Your task to perform on an android device: open app "eBay: The shopping marketplace" (install if not already installed) Image 0: 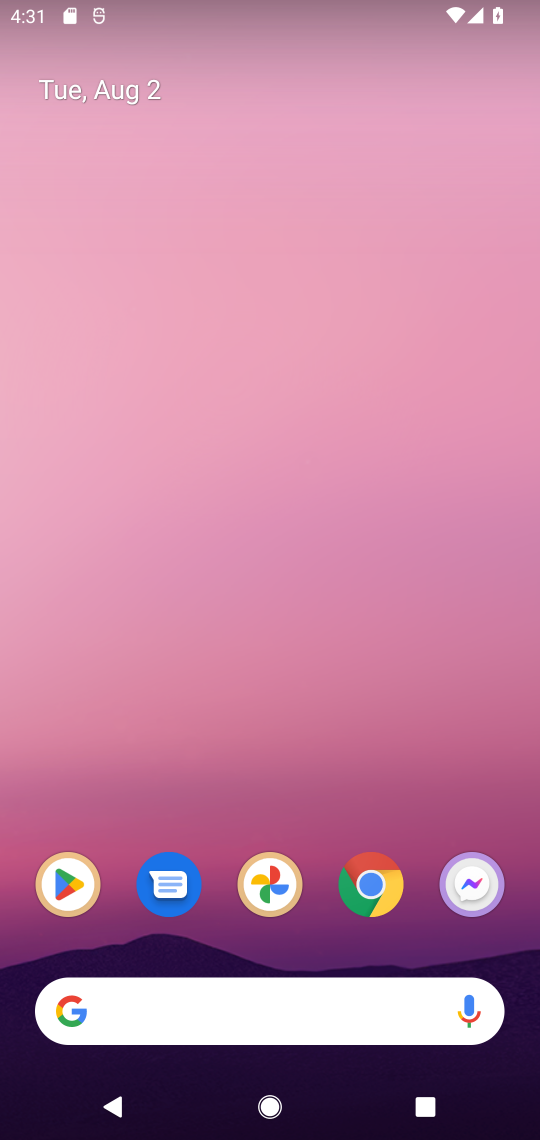
Step 0: press enter
Your task to perform on an android device: open app "eBay: The shopping marketplace" (install if not already installed) Image 1: 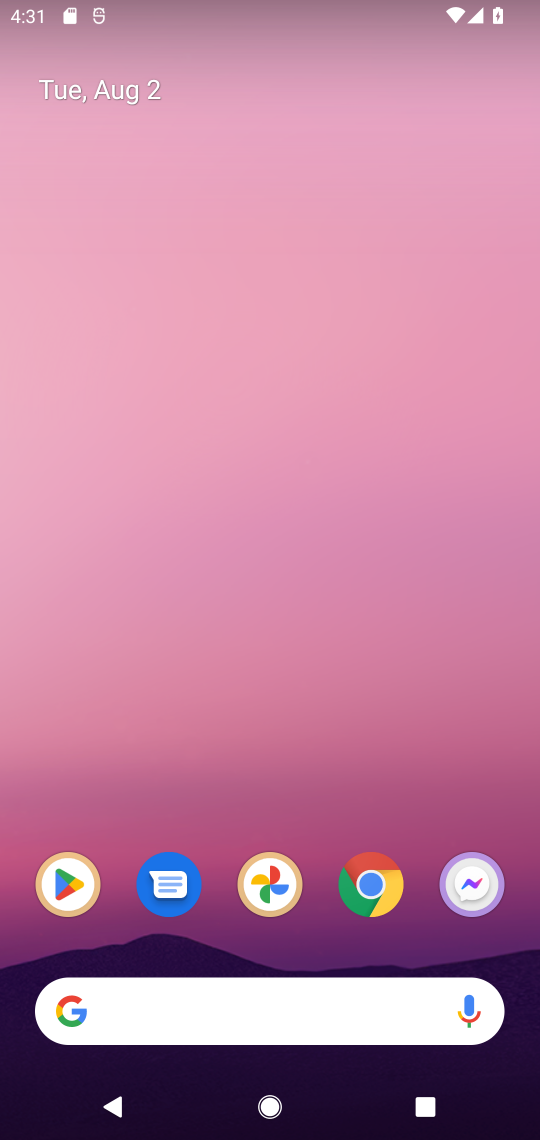
Step 1: press enter
Your task to perform on an android device: open app "eBay: The shopping marketplace" (install if not already installed) Image 2: 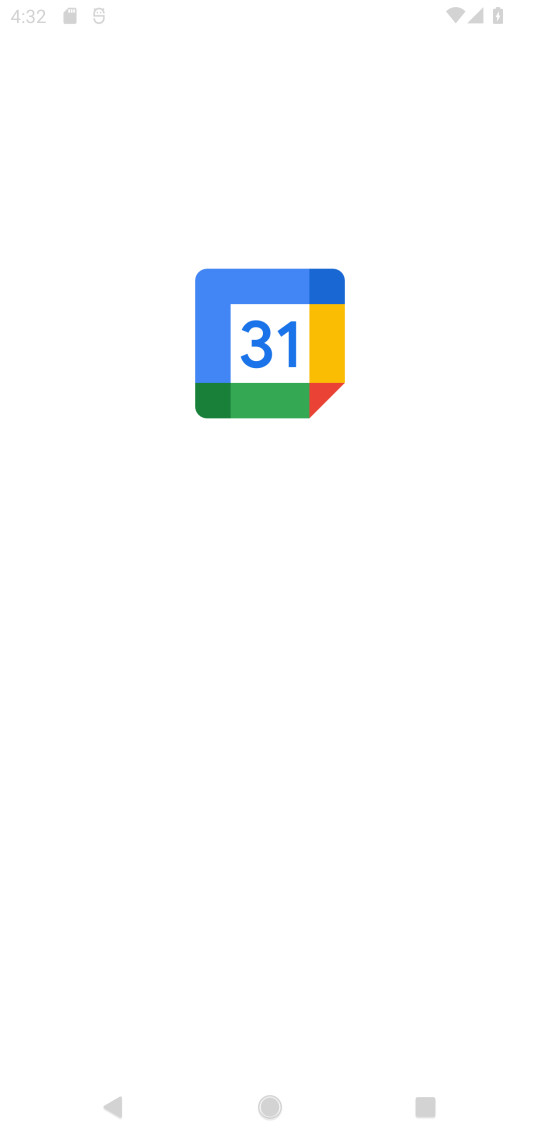
Step 2: drag from (263, 770) to (235, 2)
Your task to perform on an android device: open app "eBay: The shopping marketplace" (install if not already installed) Image 3: 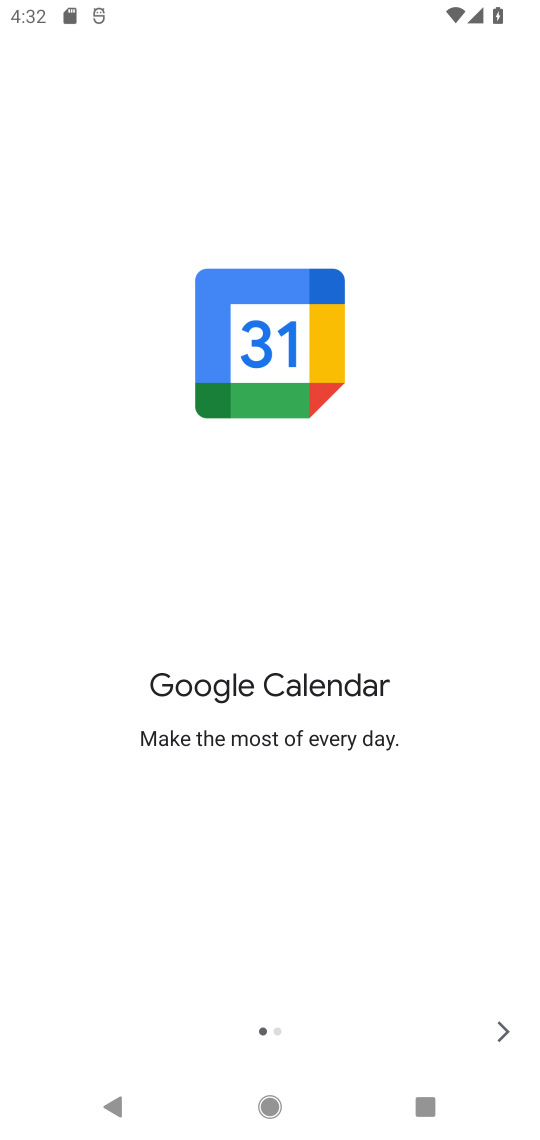
Step 3: press home button
Your task to perform on an android device: open app "eBay: The shopping marketplace" (install if not already installed) Image 4: 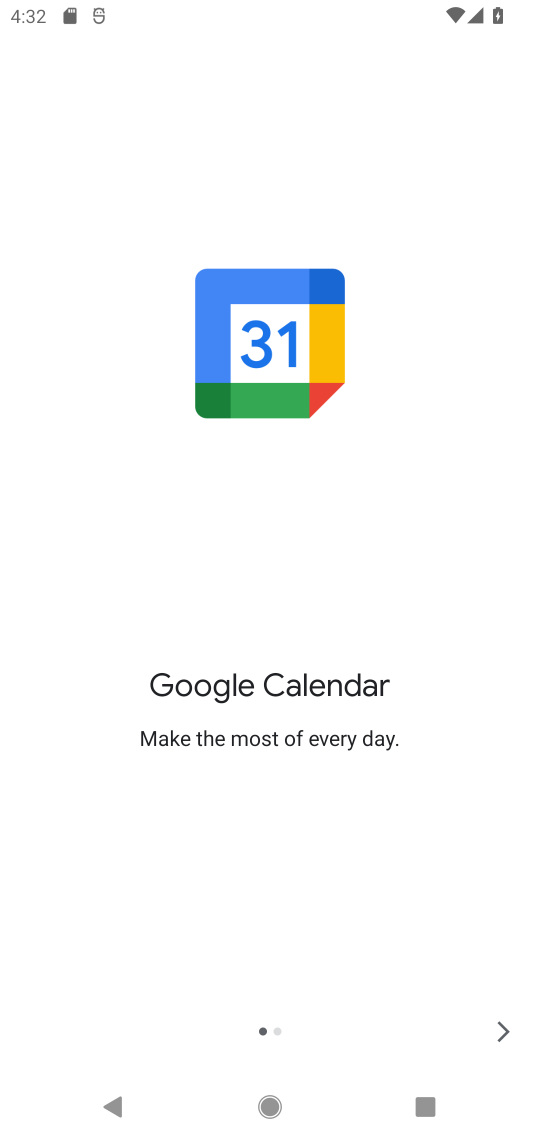
Step 4: press home button
Your task to perform on an android device: open app "eBay: The shopping marketplace" (install if not already installed) Image 5: 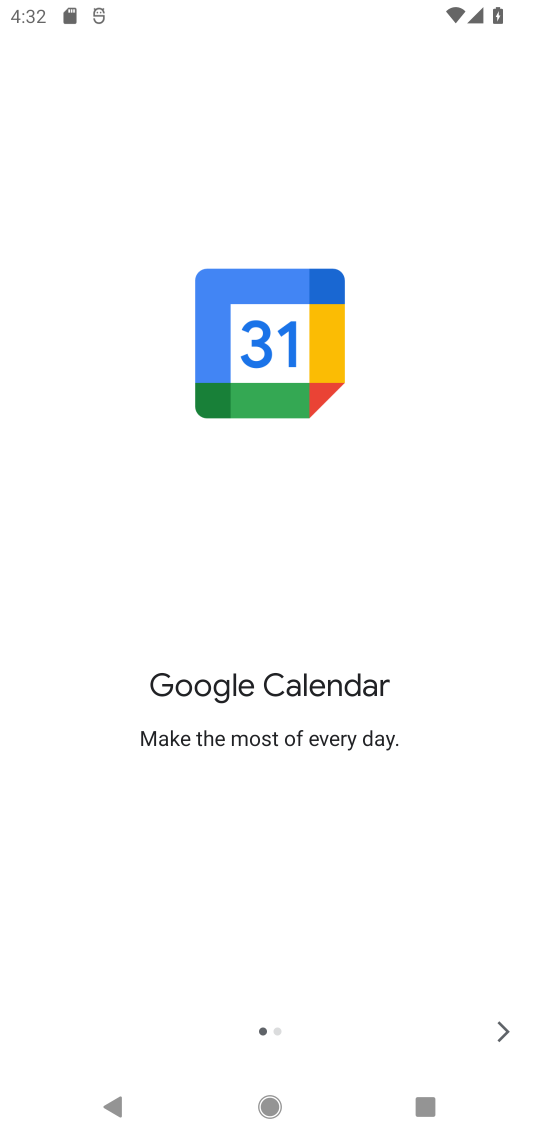
Step 5: drag from (235, 2) to (474, 690)
Your task to perform on an android device: open app "eBay: The shopping marketplace" (install if not already installed) Image 6: 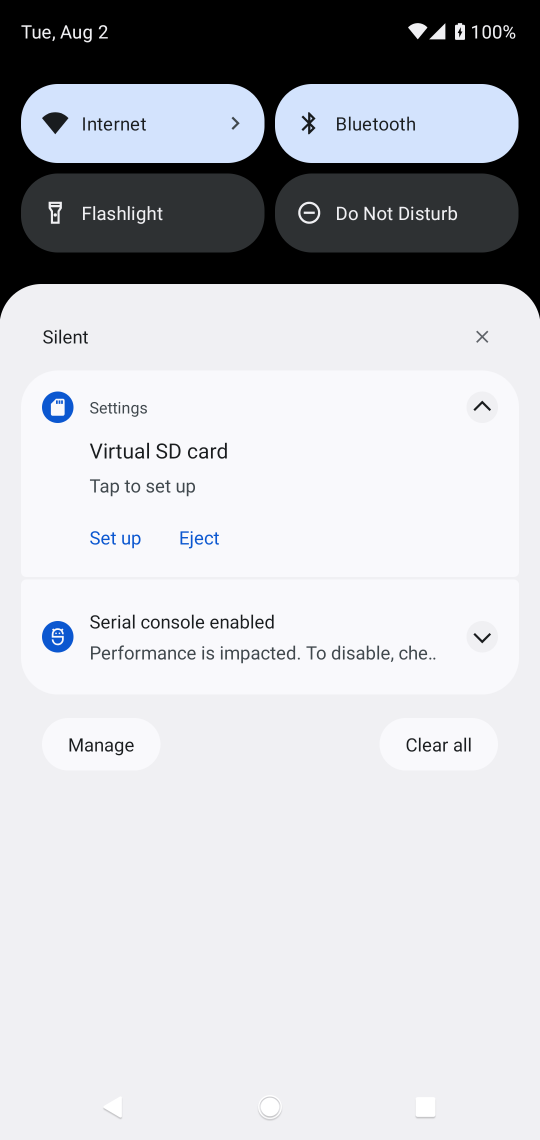
Step 6: press home button
Your task to perform on an android device: open app "eBay: The shopping marketplace" (install if not already installed) Image 7: 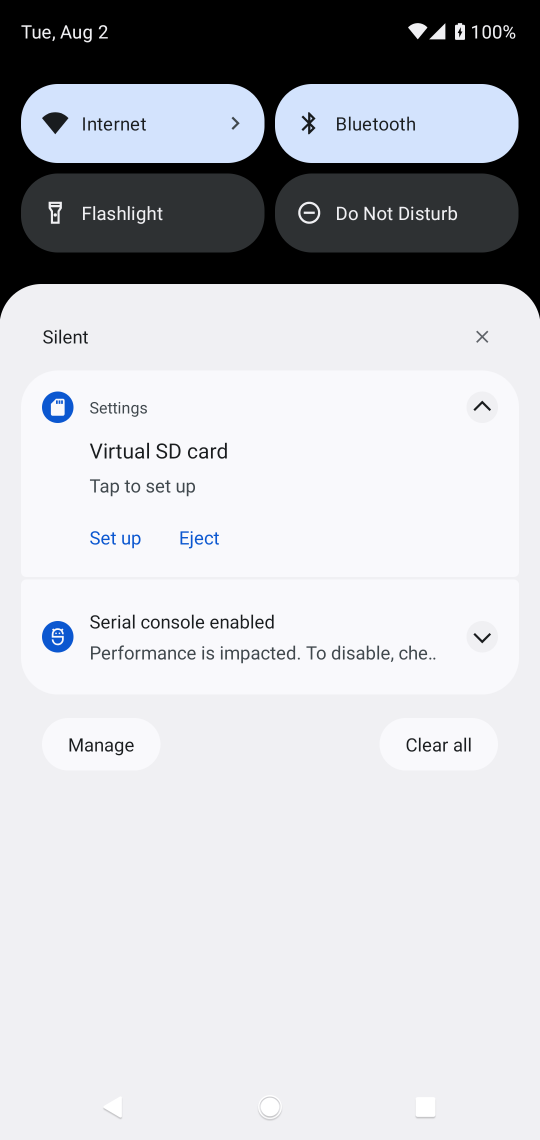
Step 7: press home button
Your task to perform on an android device: open app "eBay: The shopping marketplace" (install if not already installed) Image 8: 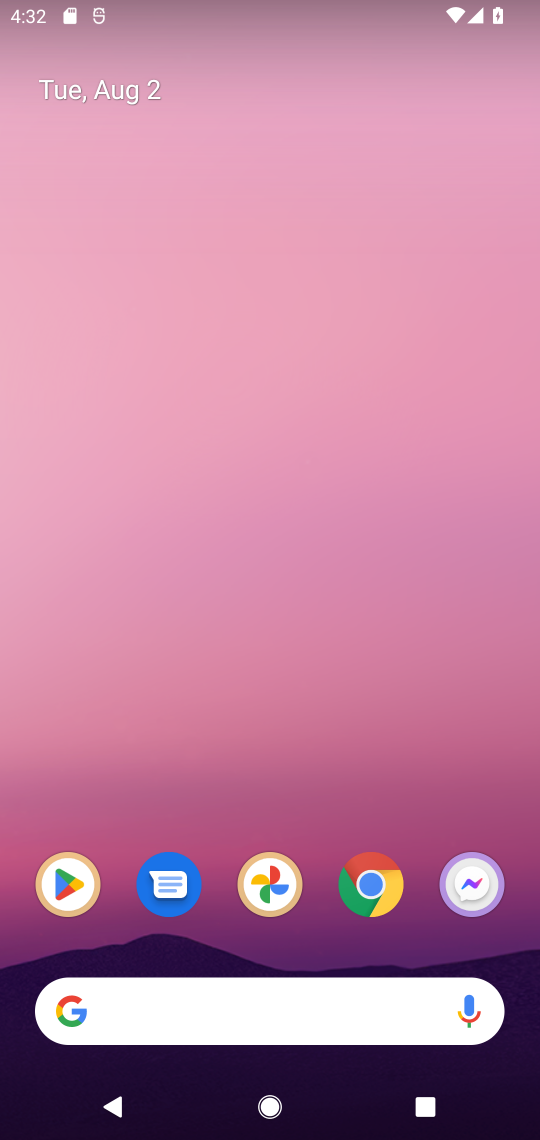
Step 8: drag from (277, 752) to (317, 99)
Your task to perform on an android device: open app "eBay: The shopping marketplace" (install if not already installed) Image 9: 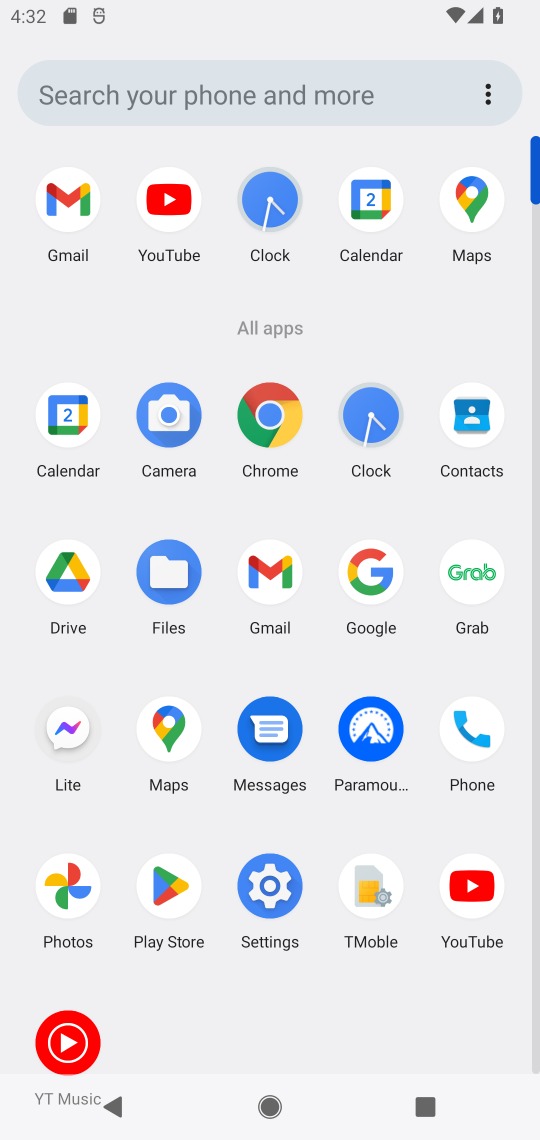
Step 9: click (178, 895)
Your task to perform on an android device: open app "eBay: The shopping marketplace" (install if not already installed) Image 10: 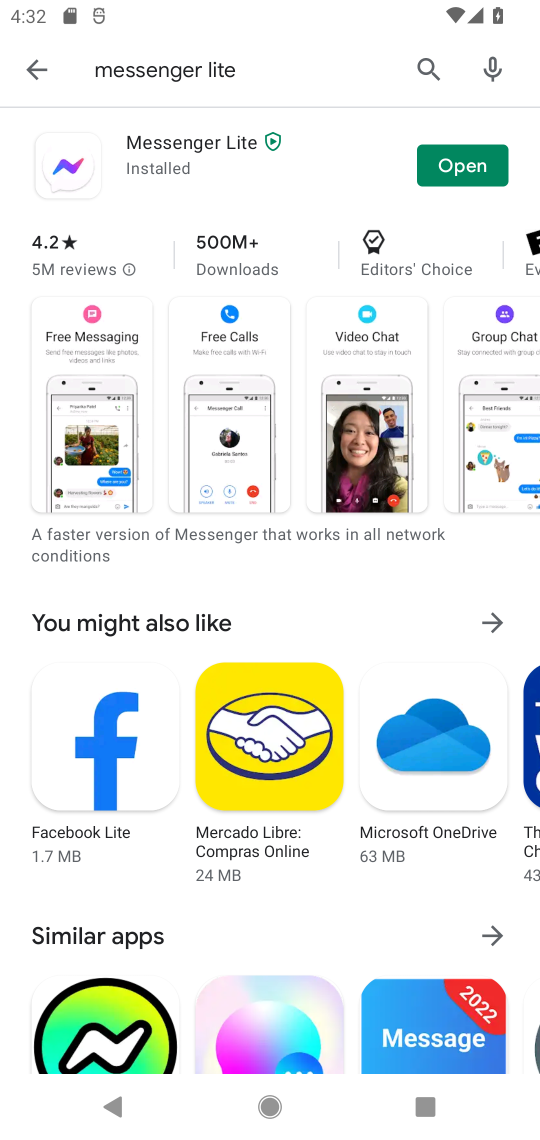
Step 10: click (426, 57)
Your task to perform on an android device: open app "eBay: The shopping marketplace" (install if not already installed) Image 11: 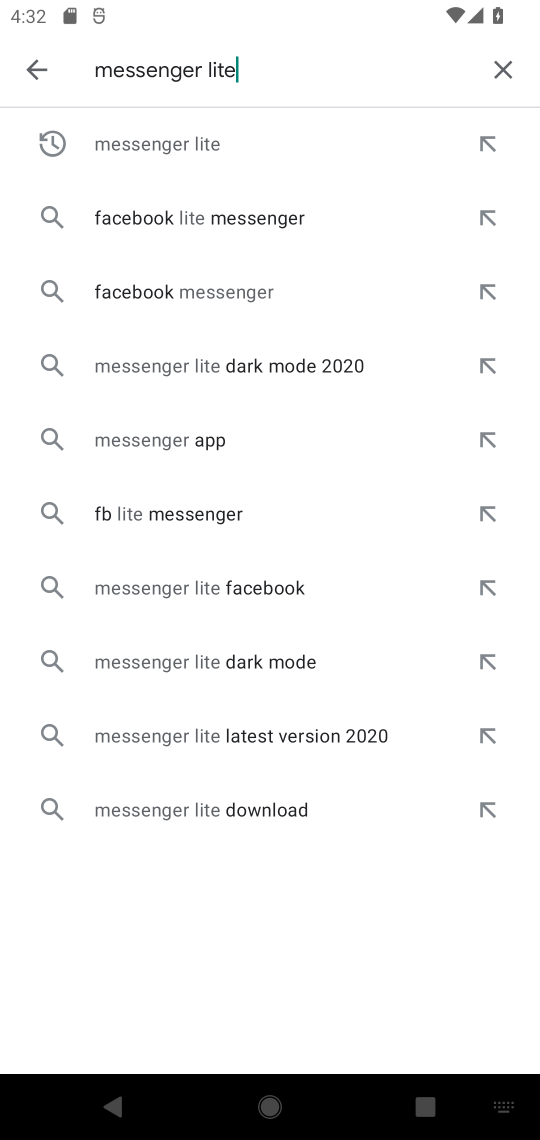
Step 11: click (494, 64)
Your task to perform on an android device: open app "eBay: The shopping marketplace" (install if not already installed) Image 12: 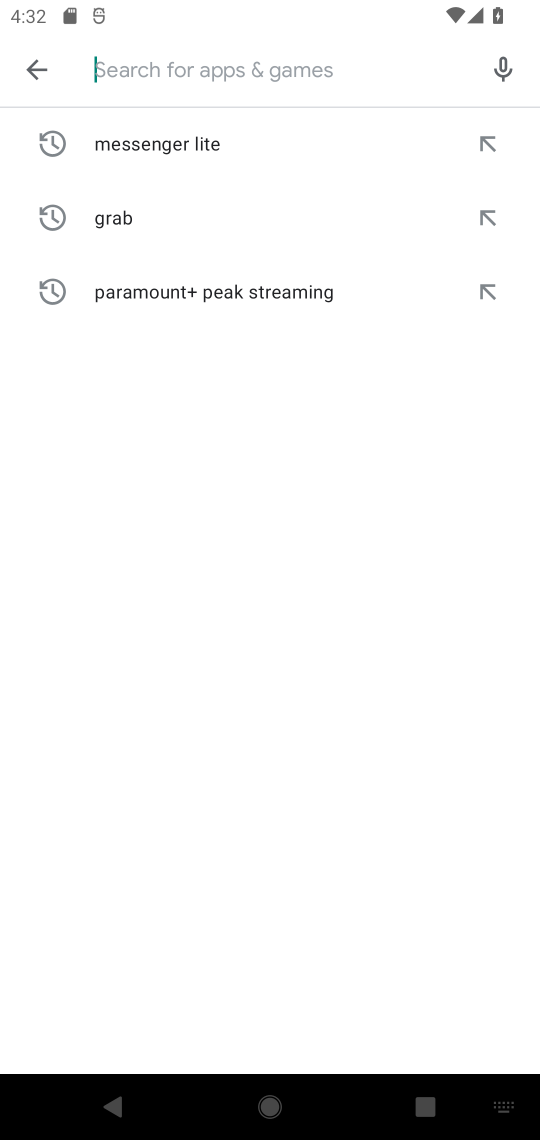
Step 12: type "eBay"
Your task to perform on an android device: open app "eBay: The shopping marketplace" (install if not already installed) Image 13: 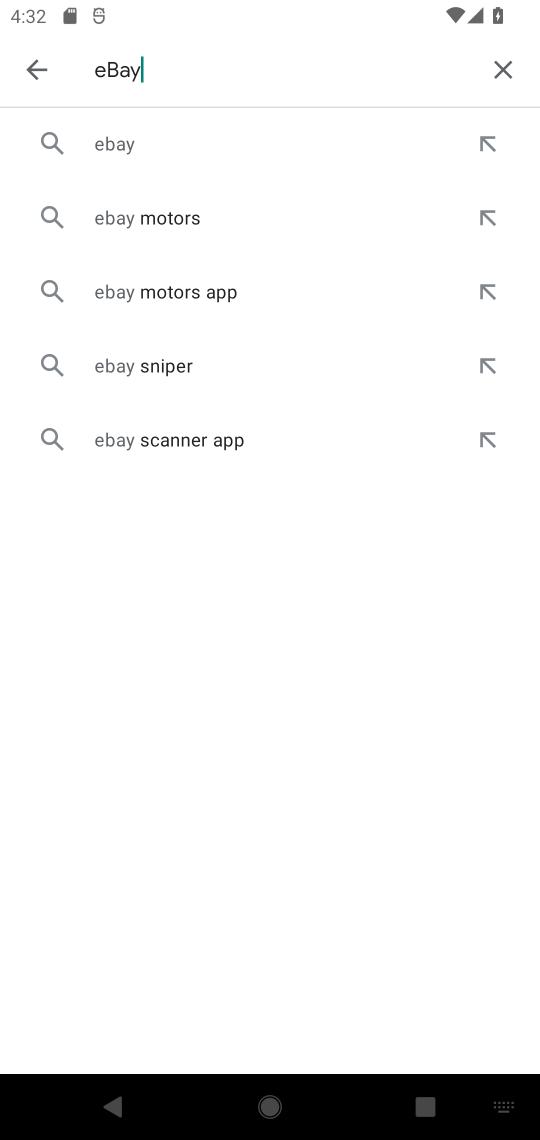
Step 13: click (116, 142)
Your task to perform on an android device: open app "eBay: The shopping marketplace" (install if not already installed) Image 14: 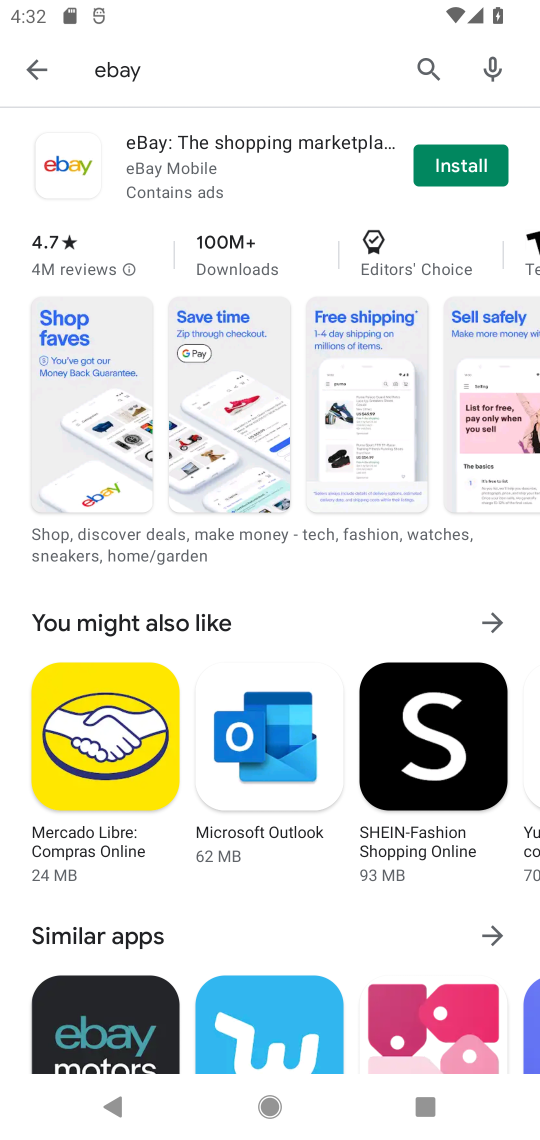
Step 14: click (478, 162)
Your task to perform on an android device: open app "eBay: The shopping marketplace" (install if not already installed) Image 15: 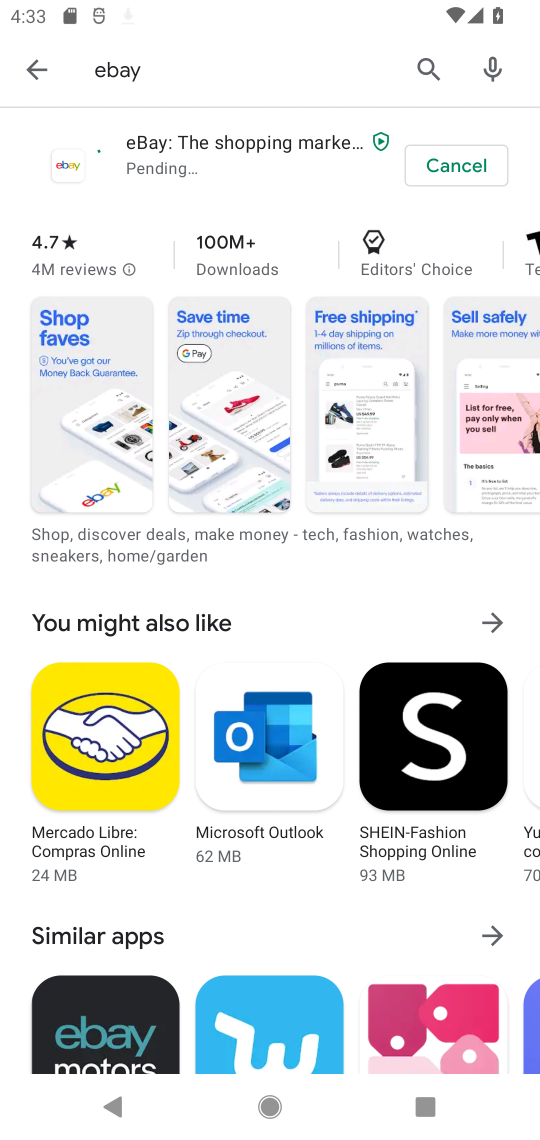
Step 15: click (200, 146)
Your task to perform on an android device: open app "eBay: The shopping marketplace" (install if not already installed) Image 16: 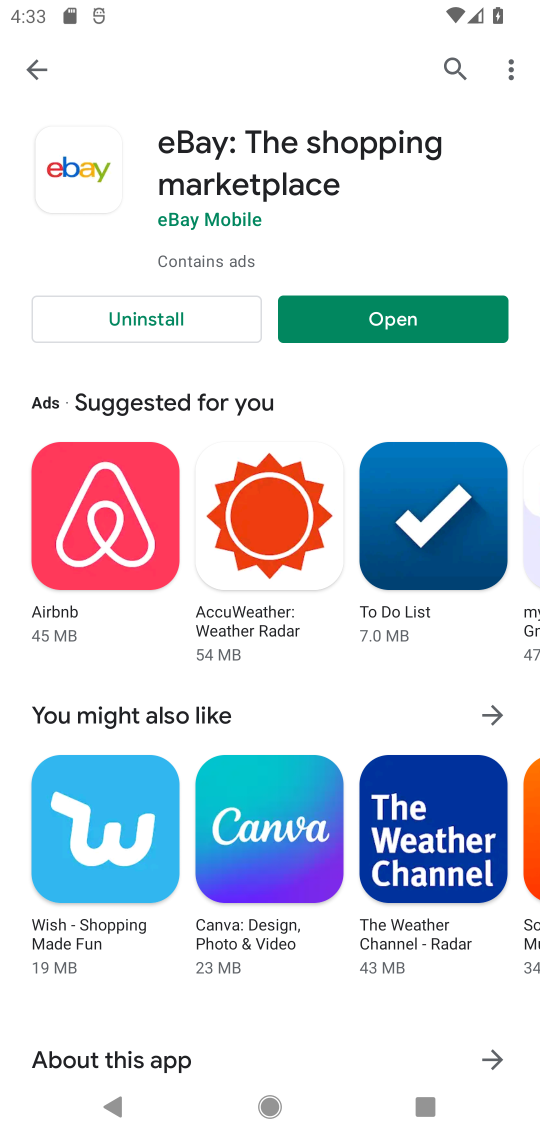
Step 16: click (384, 313)
Your task to perform on an android device: open app "eBay: The shopping marketplace" (install if not already installed) Image 17: 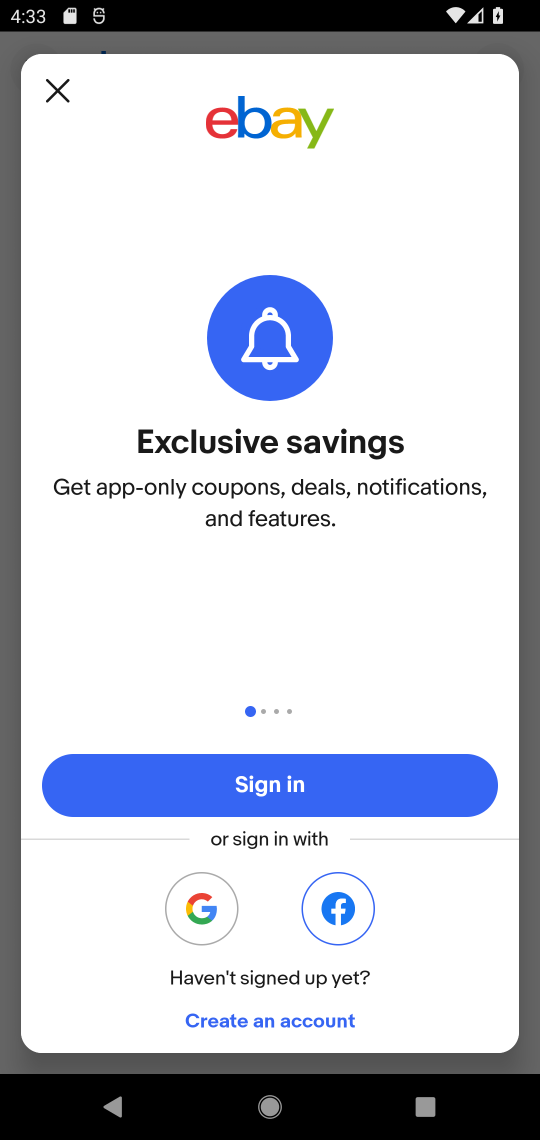
Step 17: task complete